Your task to perform on an android device: Go to Amazon Image 0: 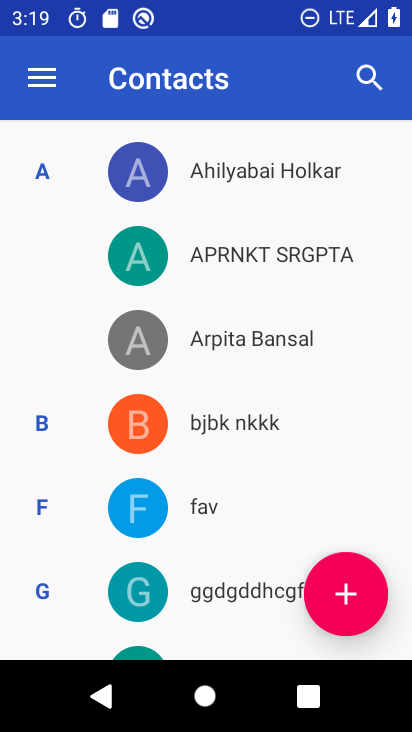
Step 0: press back button
Your task to perform on an android device: Go to Amazon Image 1: 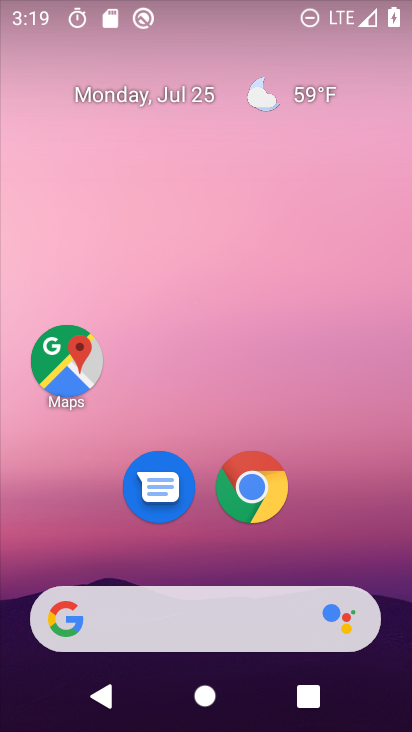
Step 1: click (244, 480)
Your task to perform on an android device: Go to Amazon Image 2: 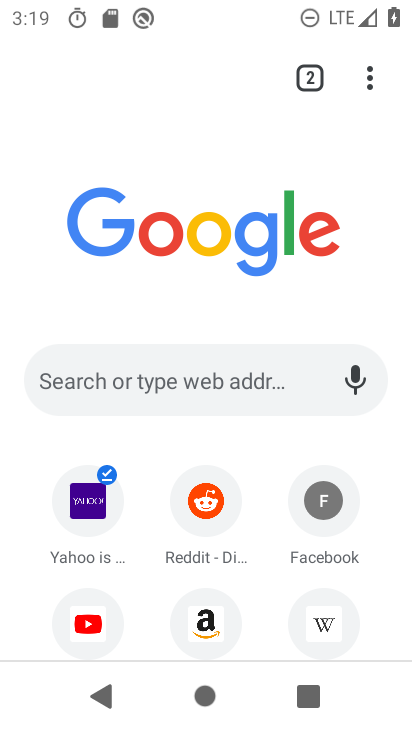
Step 2: click (180, 618)
Your task to perform on an android device: Go to Amazon Image 3: 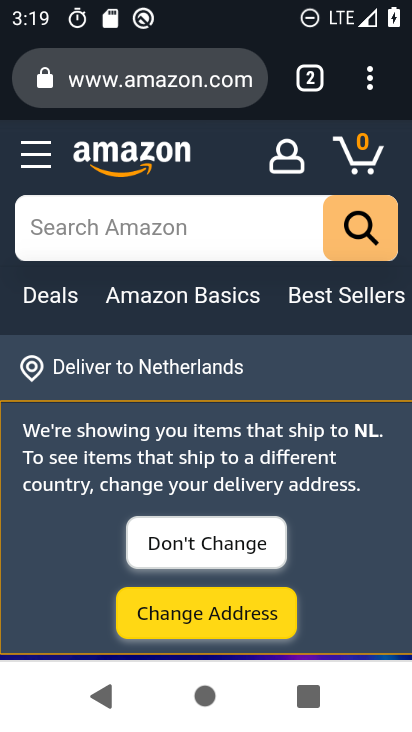
Step 3: task complete